Your task to perform on an android device: open app "PlayWell" (install if not already installed) Image 0: 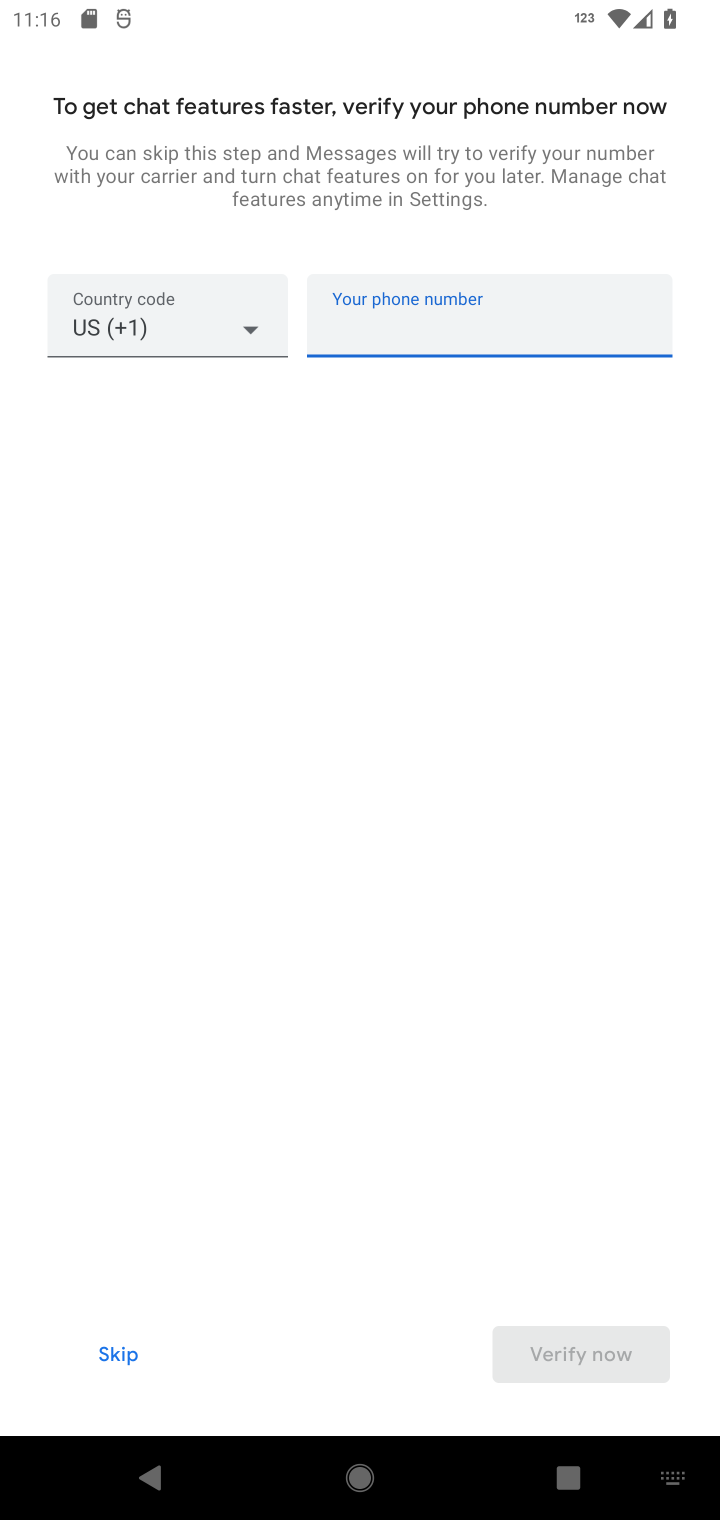
Step 0: press home button
Your task to perform on an android device: open app "PlayWell" (install if not already installed) Image 1: 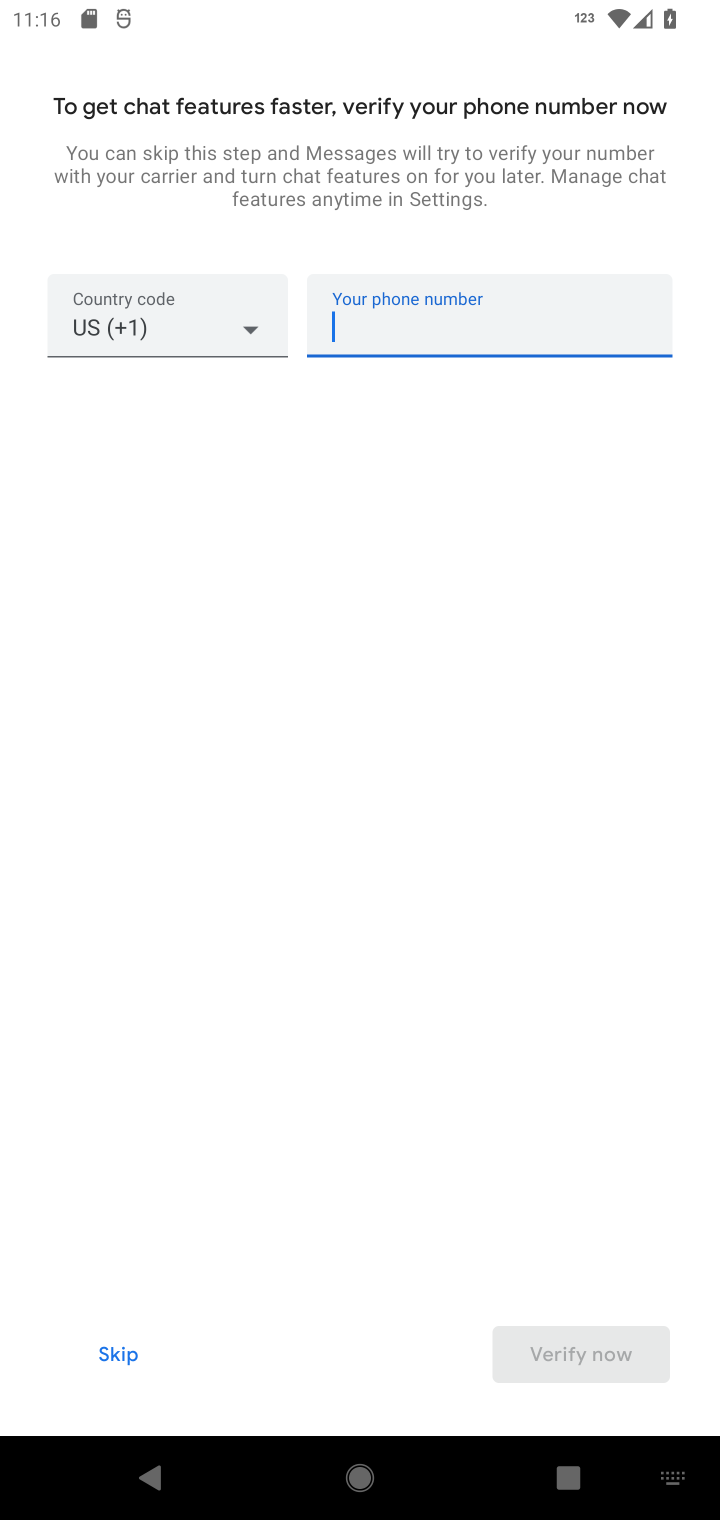
Step 1: press home button
Your task to perform on an android device: open app "PlayWell" (install if not already installed) Image 2: 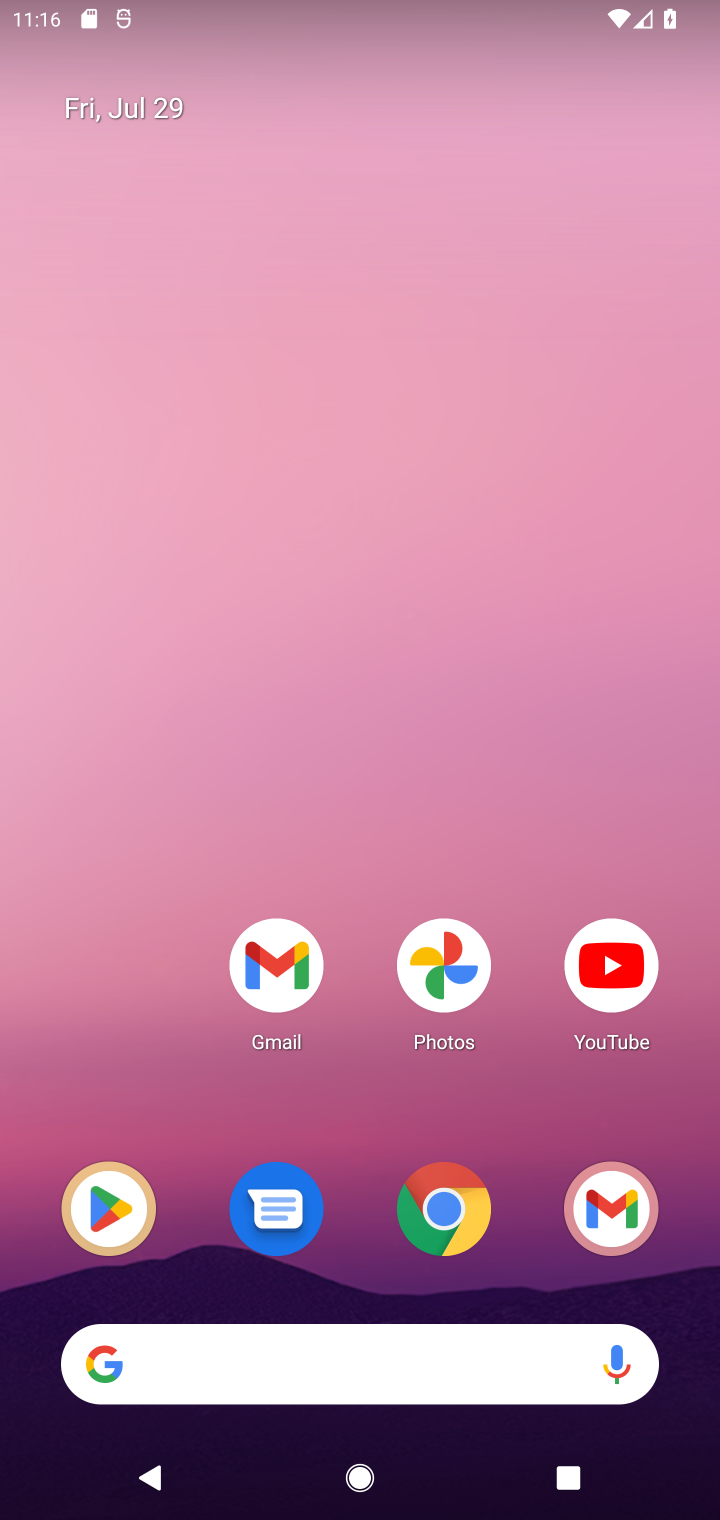
Step 2: drag from (528, 956) to (549, 86)
Your task to perform on an android device: open app "PlayWell" (install if not already installed) Image 3: 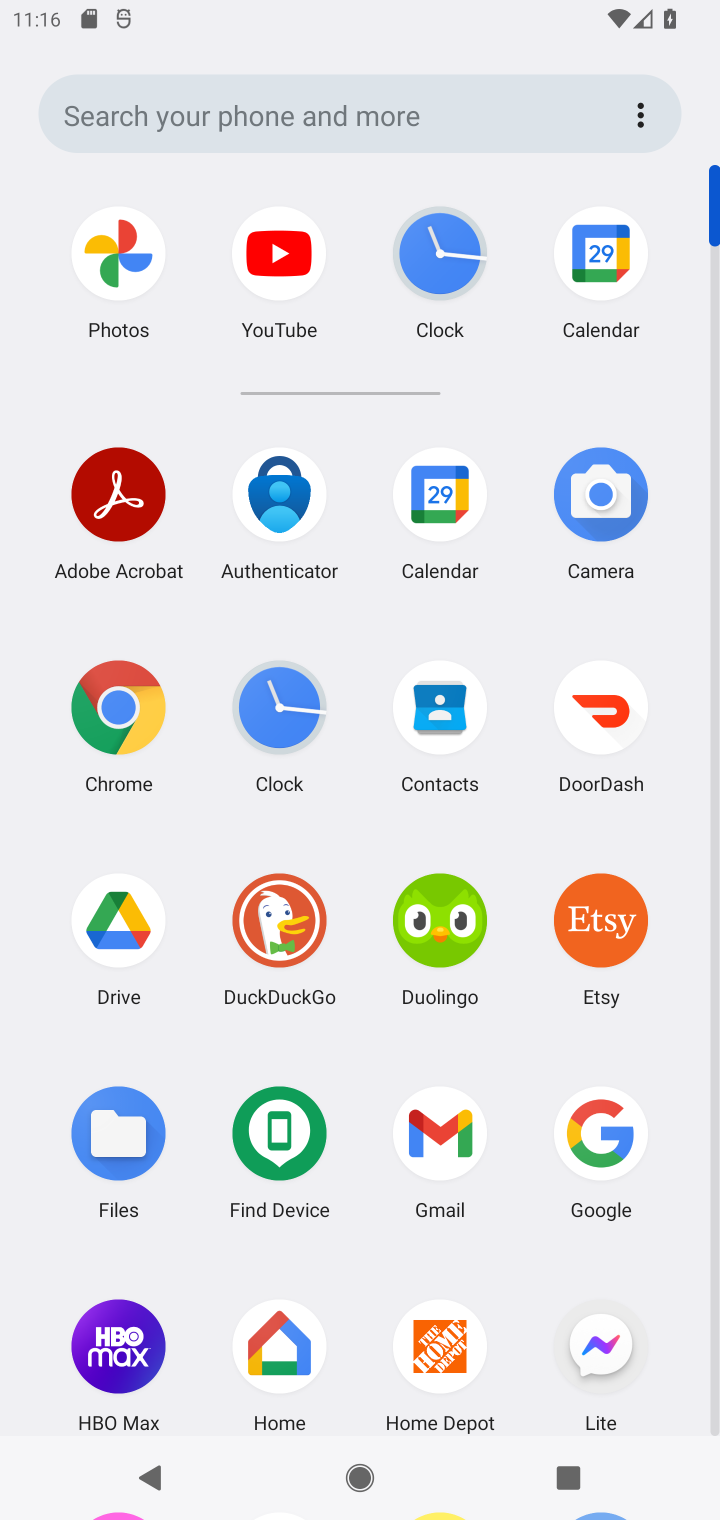
Step 3: drag from (530, 980) to (580, 306)
Your task to perform on an android device: open app "PlayWell" (install if not already installed) Image 4: 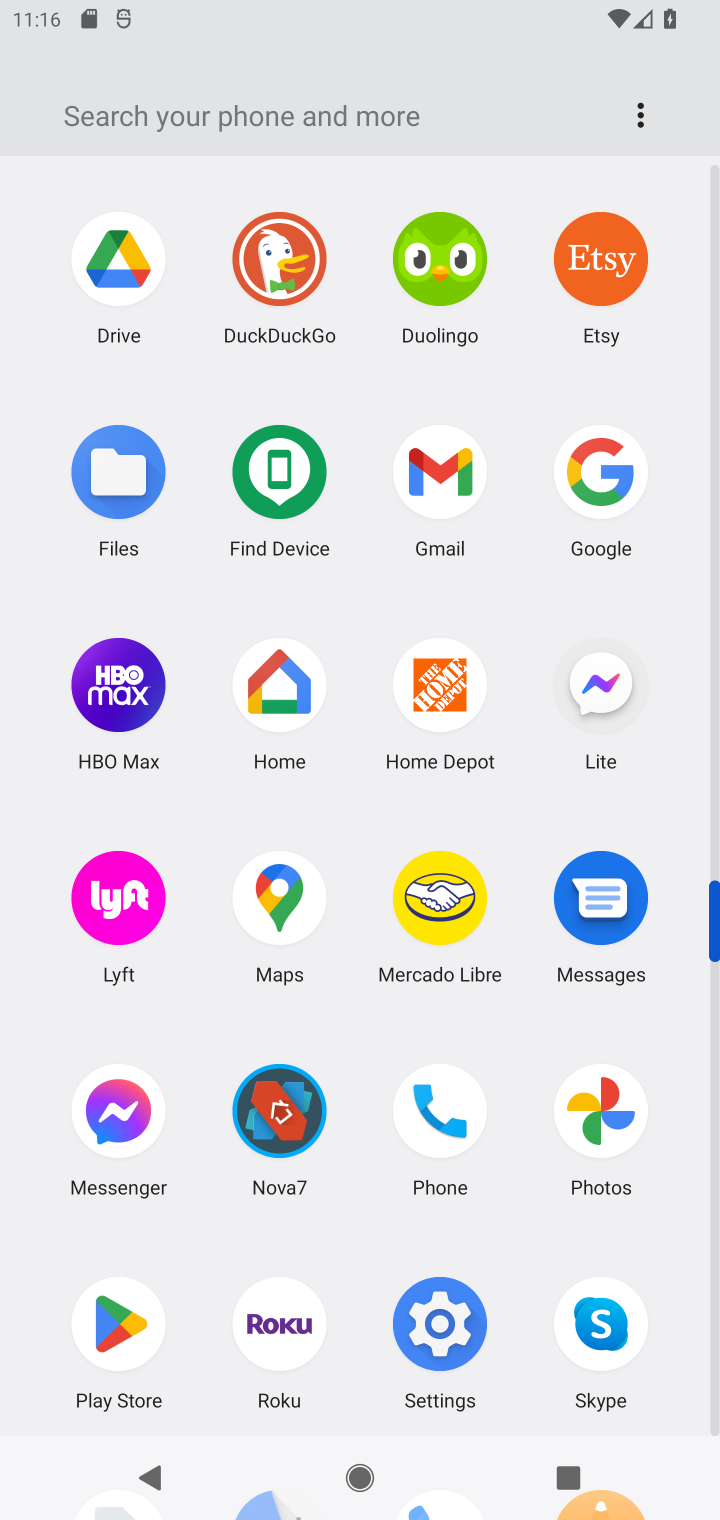
Step 4: click (130, 1315)
Your task to perform on an android device: open app "PlayWell" (install if not already installed) Image 5: 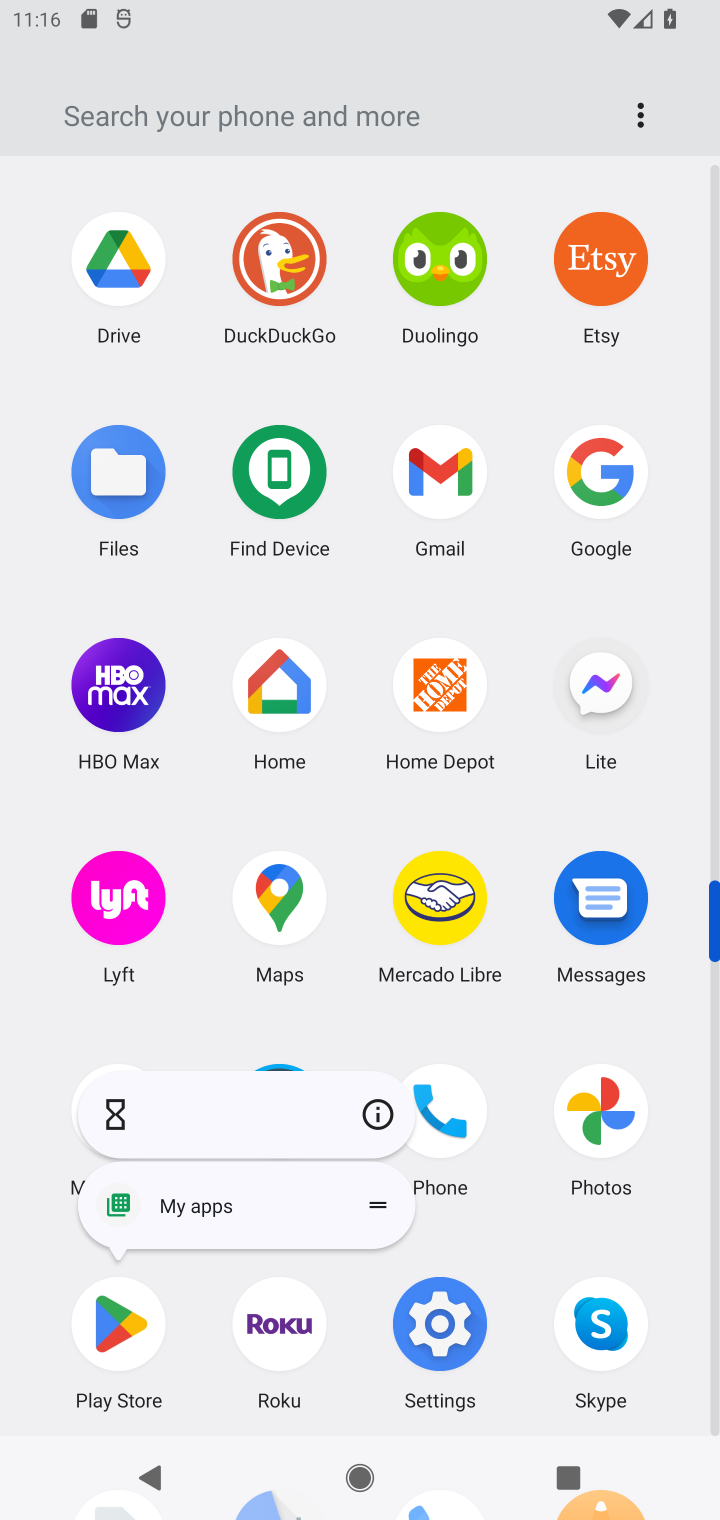
Step 5: click (118, 1332)
Your task to perform on an android device: open app "PlayWell" (install if not already installed) Image 6: 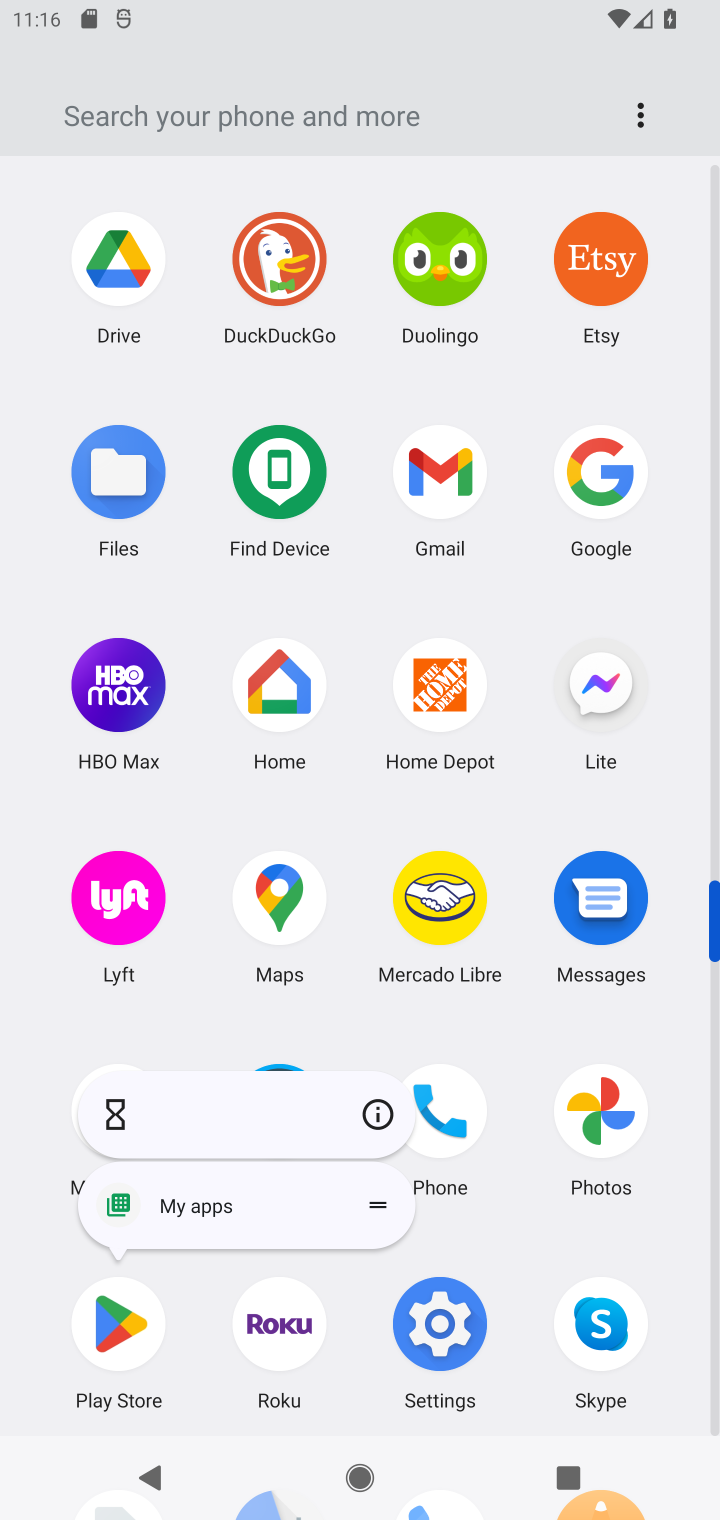
Step 6: click (102, 1341)
Your task to perform on an android device: open app "PlayWell" (install if not already installed) Image 7: 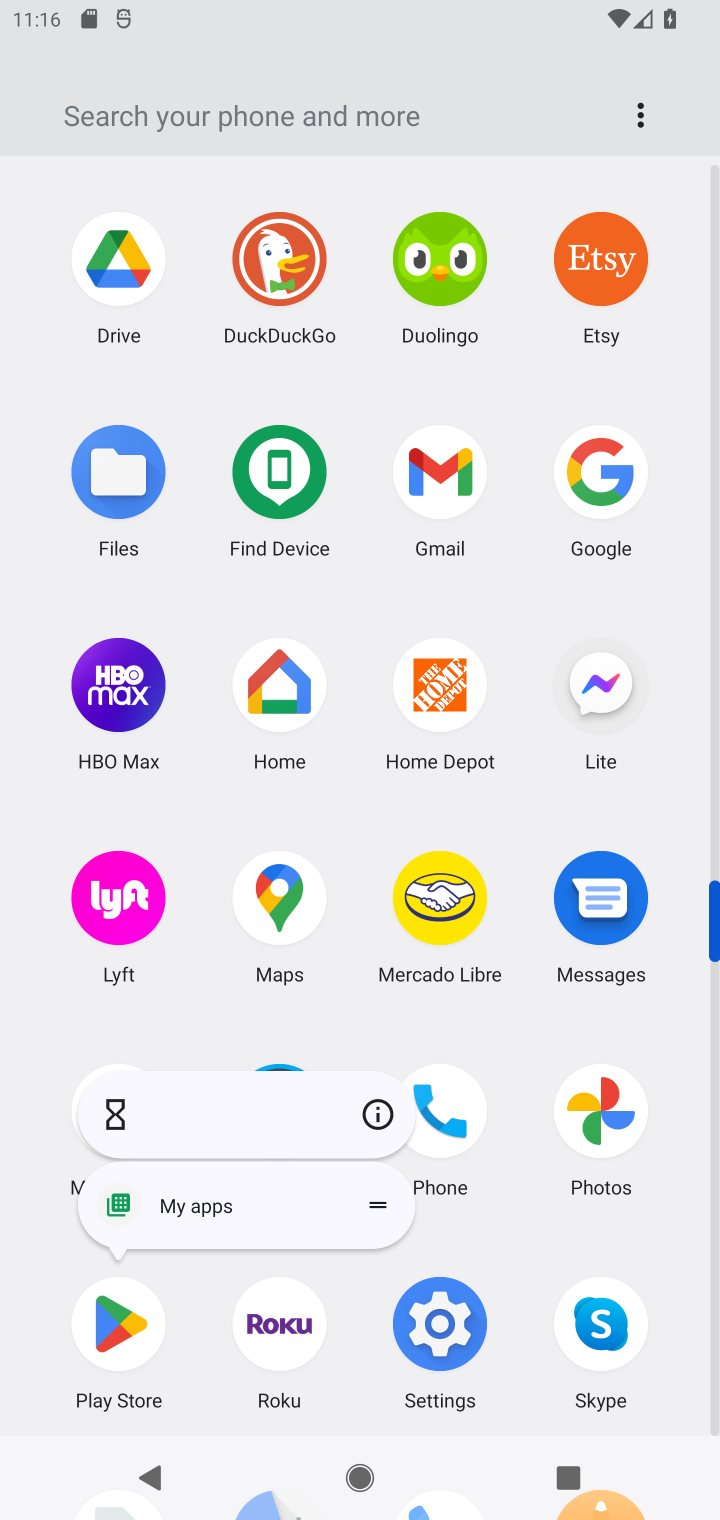
Step 7: click (524, 1240)
Your task to perform on an android device: open app "PlayWell" (install if not already installed) Image 8: 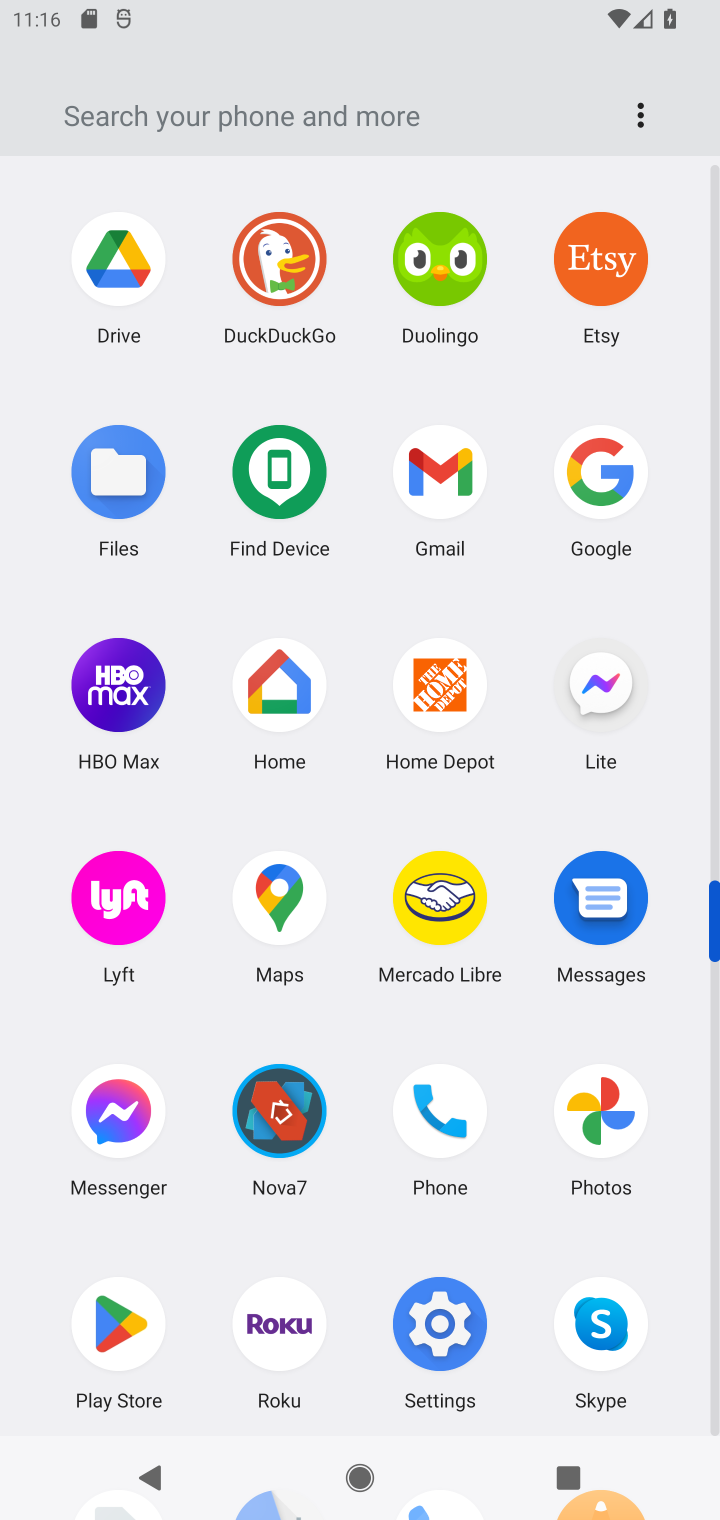
Step 8: click (109, 1342)
Your task to perform on an android device: open app "PlayWell" (install if not already installed) Image 9: 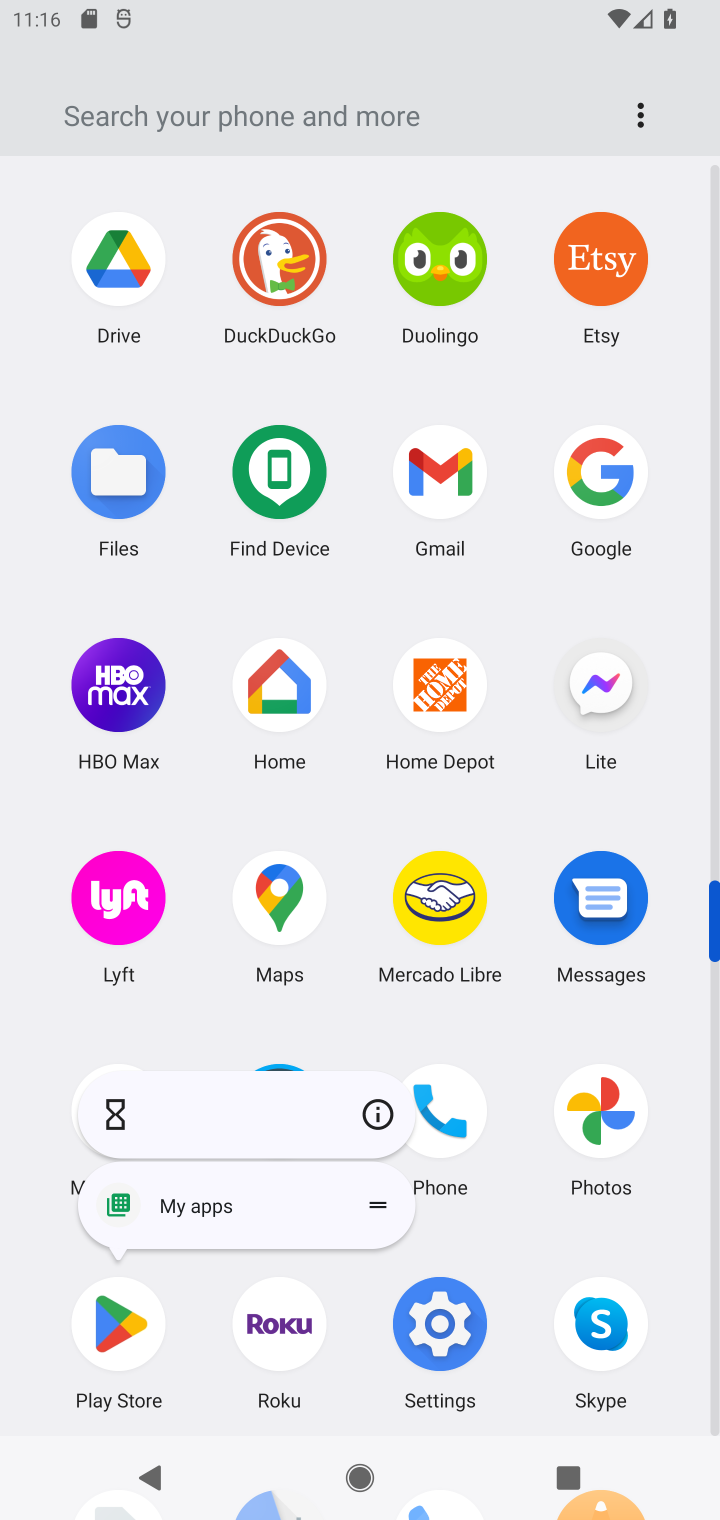
Step 9: click (495, 1242)
Your task to perform on an android device: open app "PlayWell" (install if not already installed) Image 10: 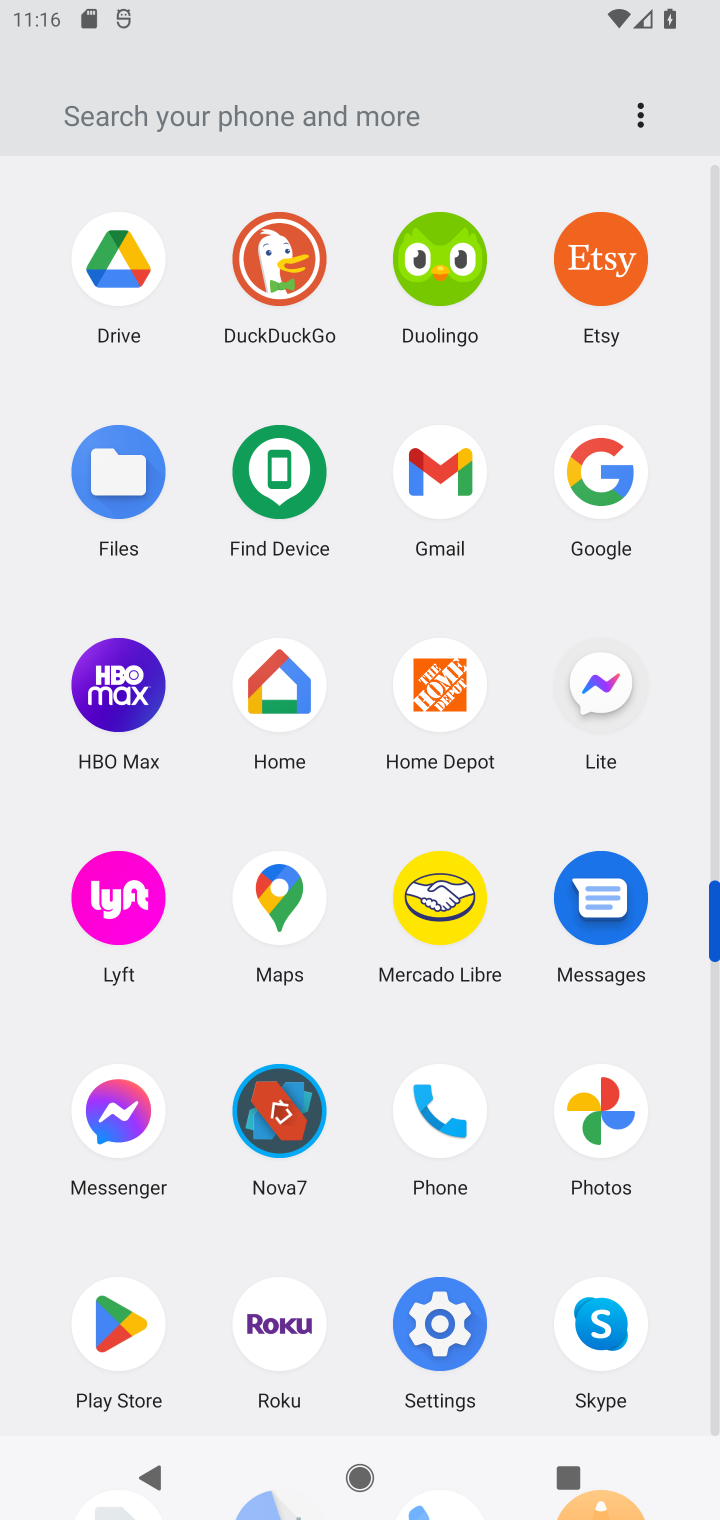
Step 10: click (506, 1243)
Your task to perform on an android device: open app "PlayWell" (install if not already installed) Image 11: 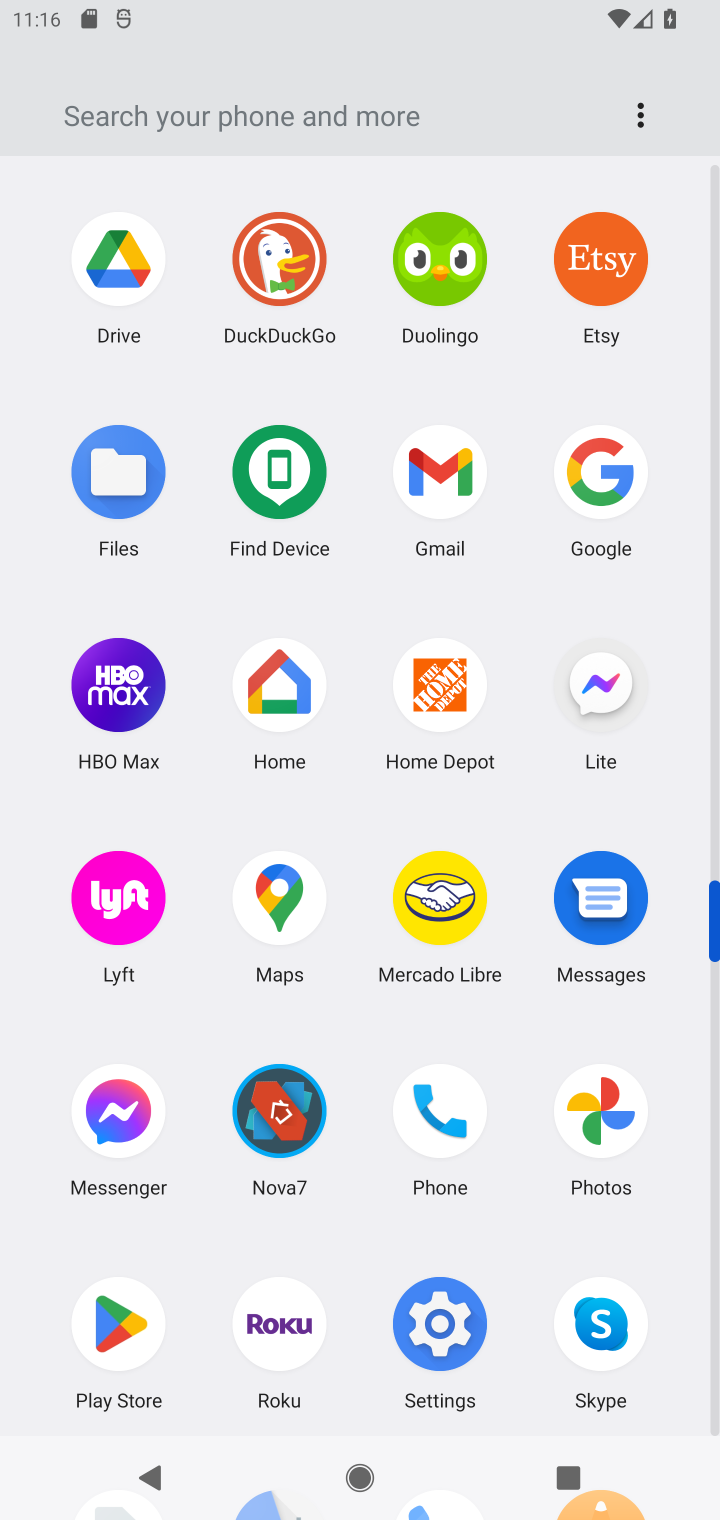
Step 11: click (124, 1311)
Your task to perform on an android device: open app "PlayWell" (install if not already installed) Image 12: 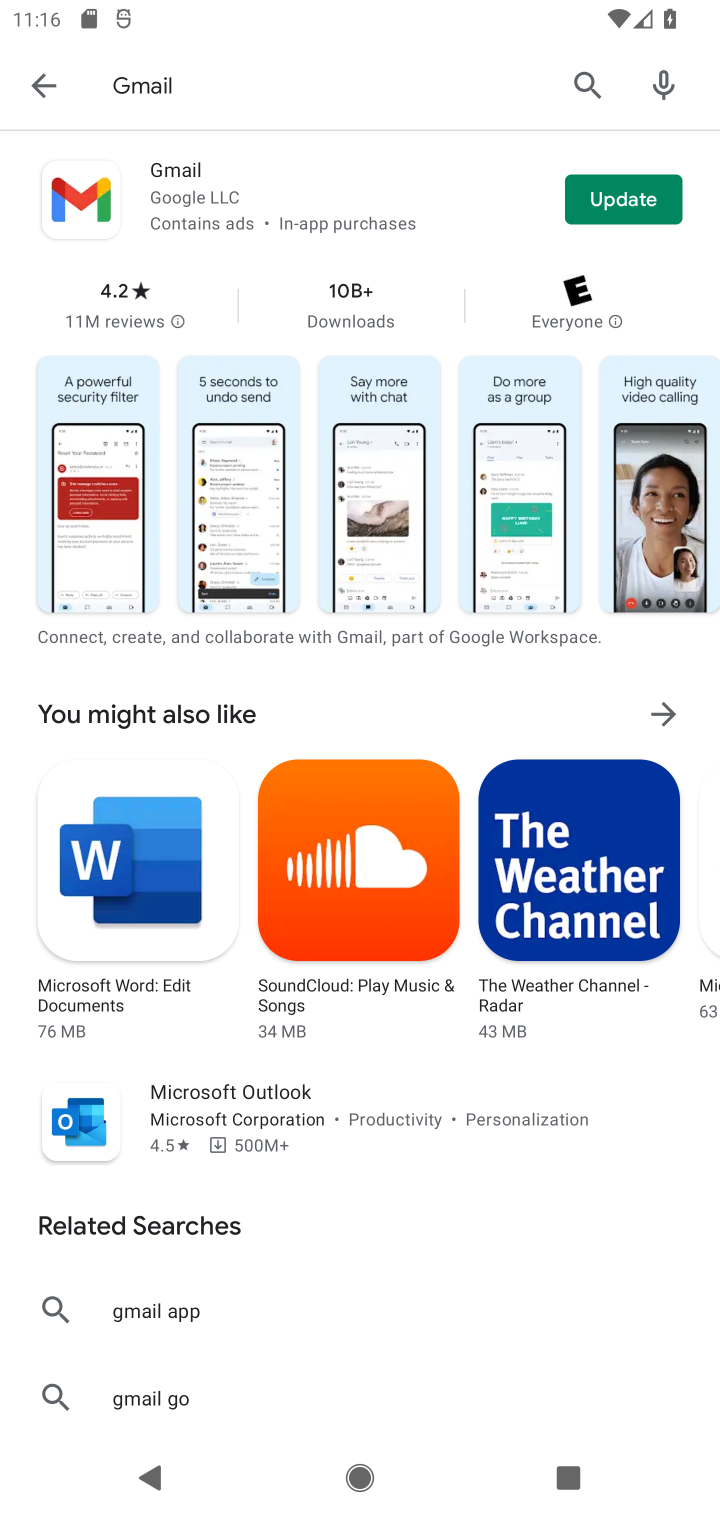
Step 12: click (379, 88)
Your task to perform on an android device: open app "PlayWell" (install if not already installed) Image 13: 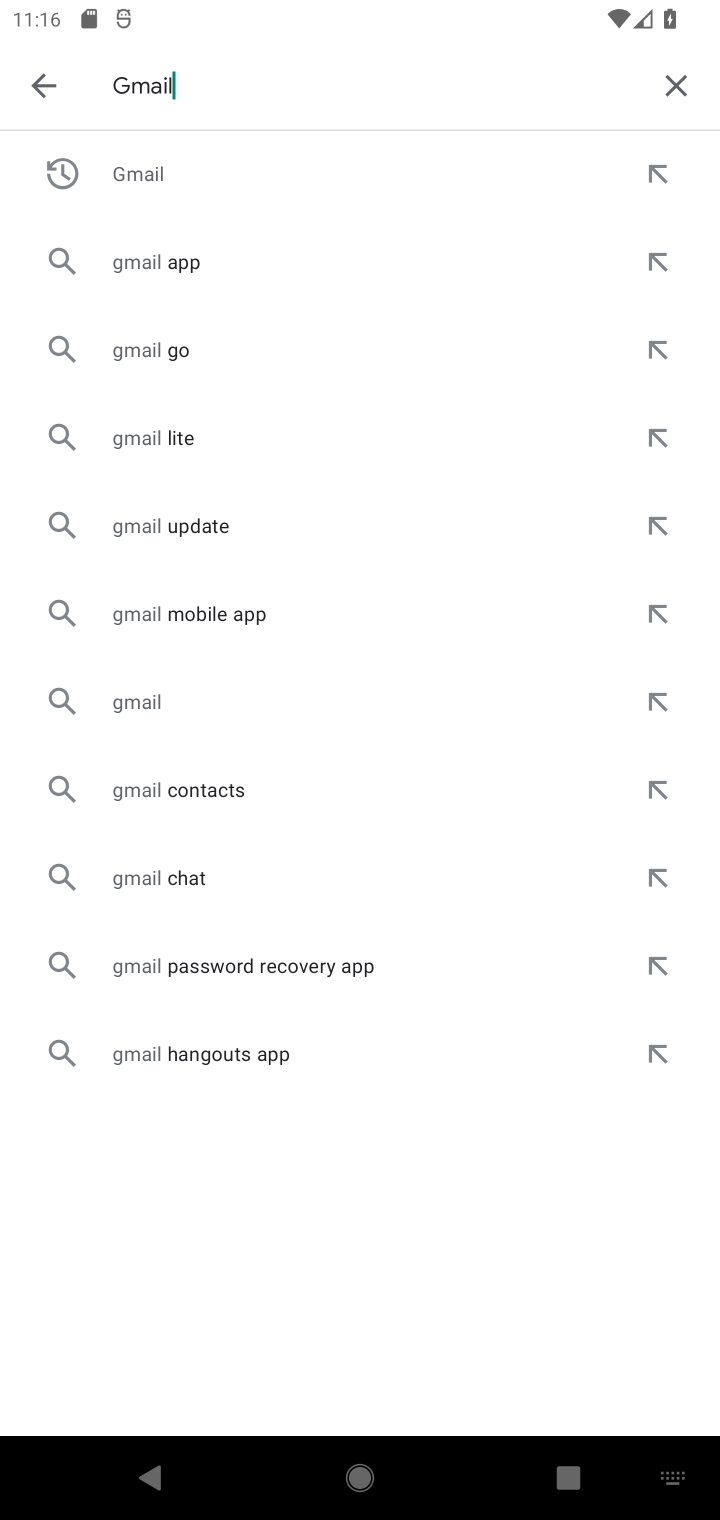
Step 13: click (685, 82)
Your task to perform on an android device: open app "PlayWell" (install if not already installed) Image 14: 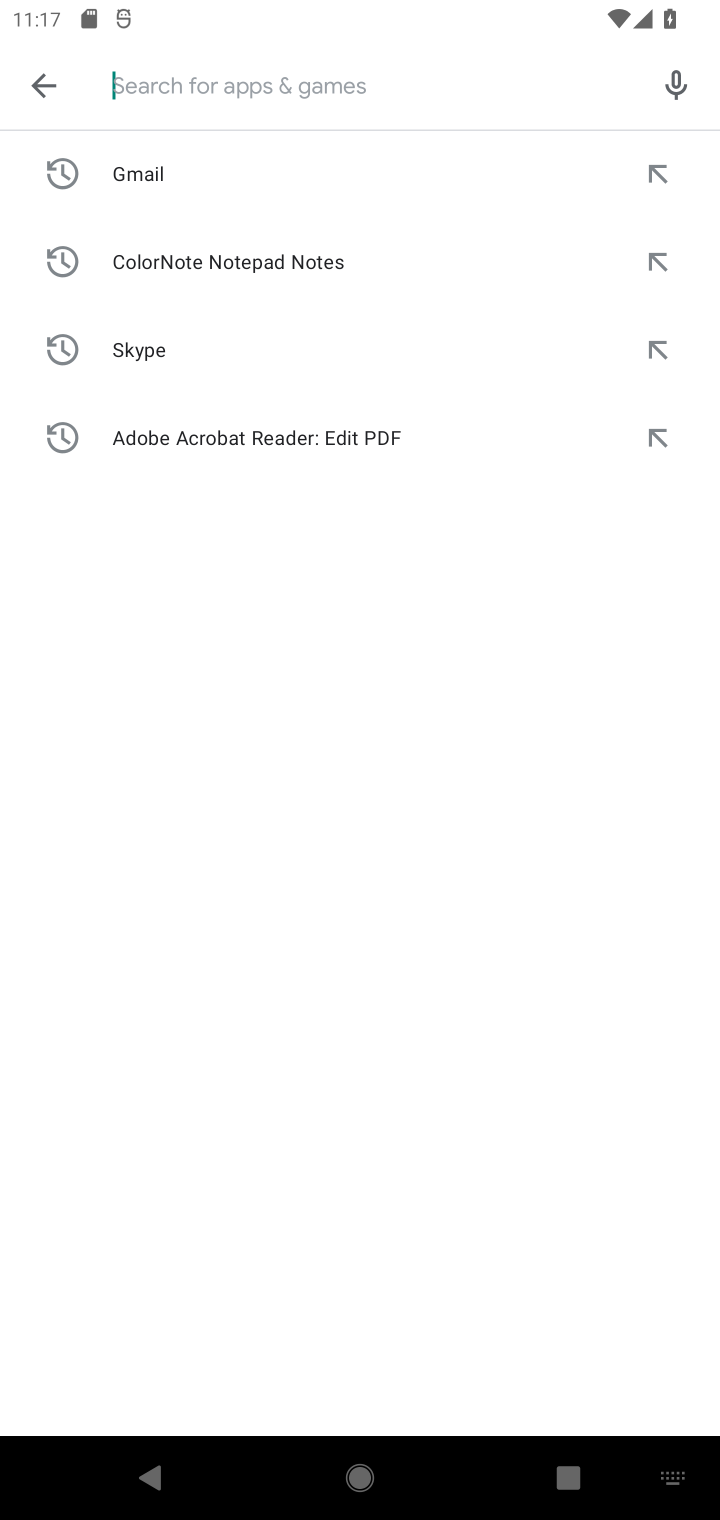
Step 14: type "PlayWell"
Your task to perform on an android device: open app "PlayWell" (install if not already installed) Image 15: 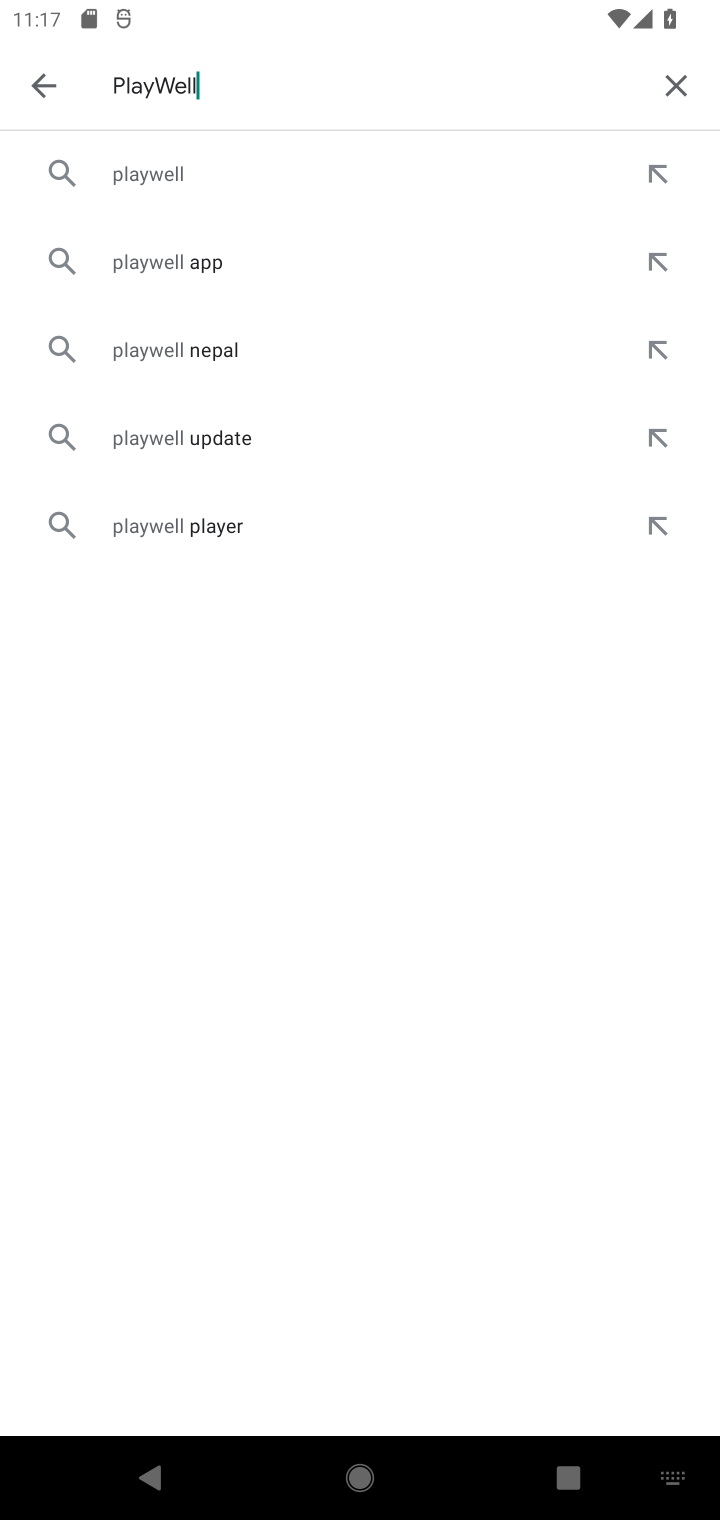
Step 15: press enter
Your task to perform on an android device: open app "PlayWell" (install if not already installed) Image 16: 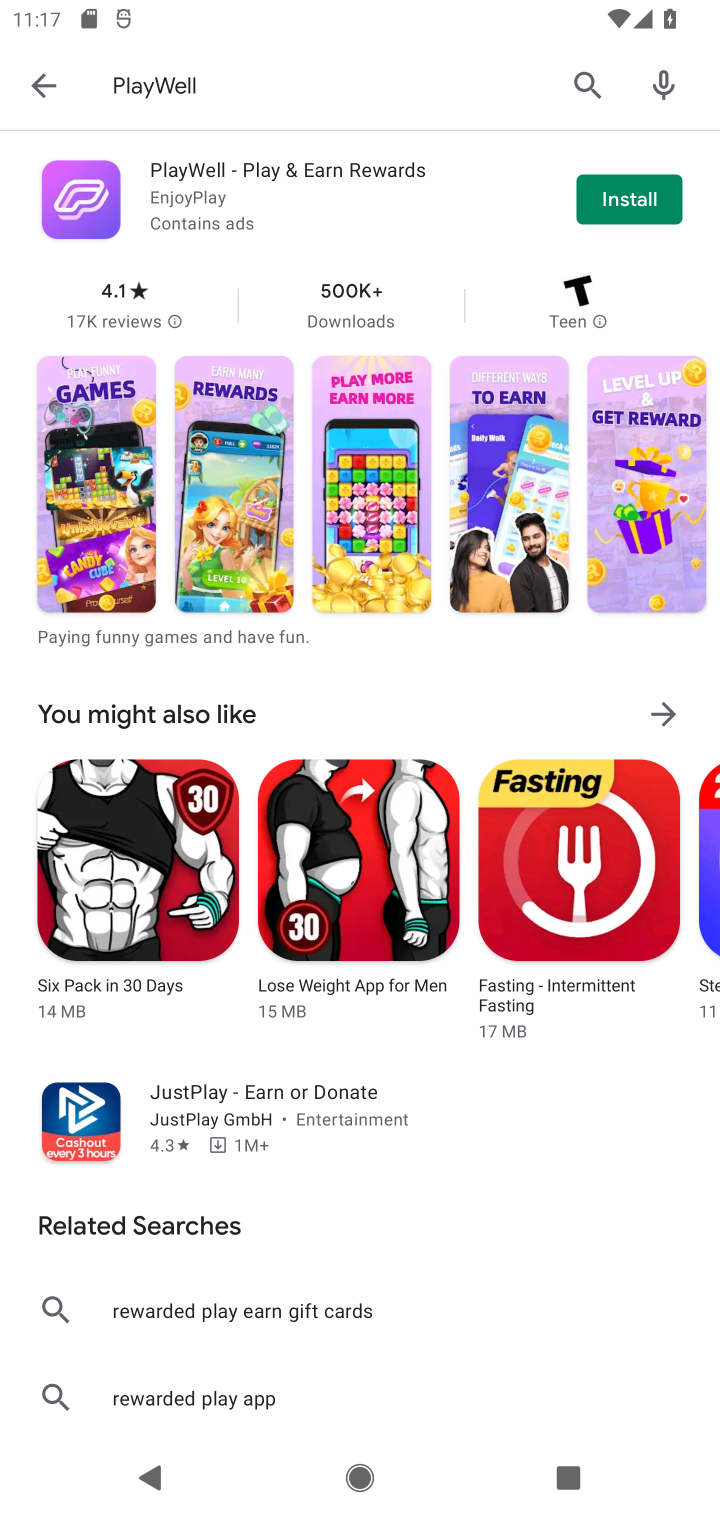
Step 16: click (652, 188)
Your task to perform on an android device: open app "PlayWell" (install if not already installed) Image 17: 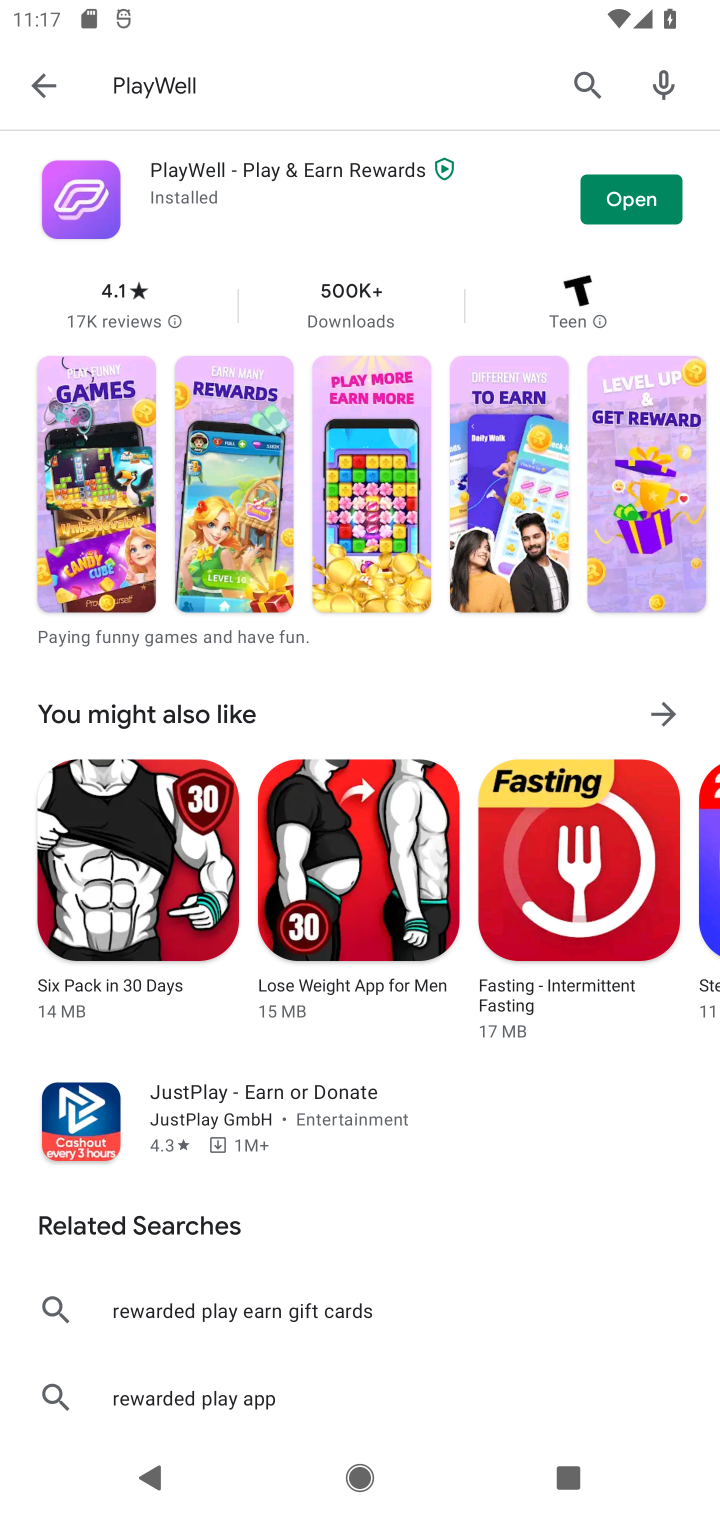
Step 17: click (618, 200)
Your task to perform on an android device: open app "PlayWell" (install if not already installed) Image 18: 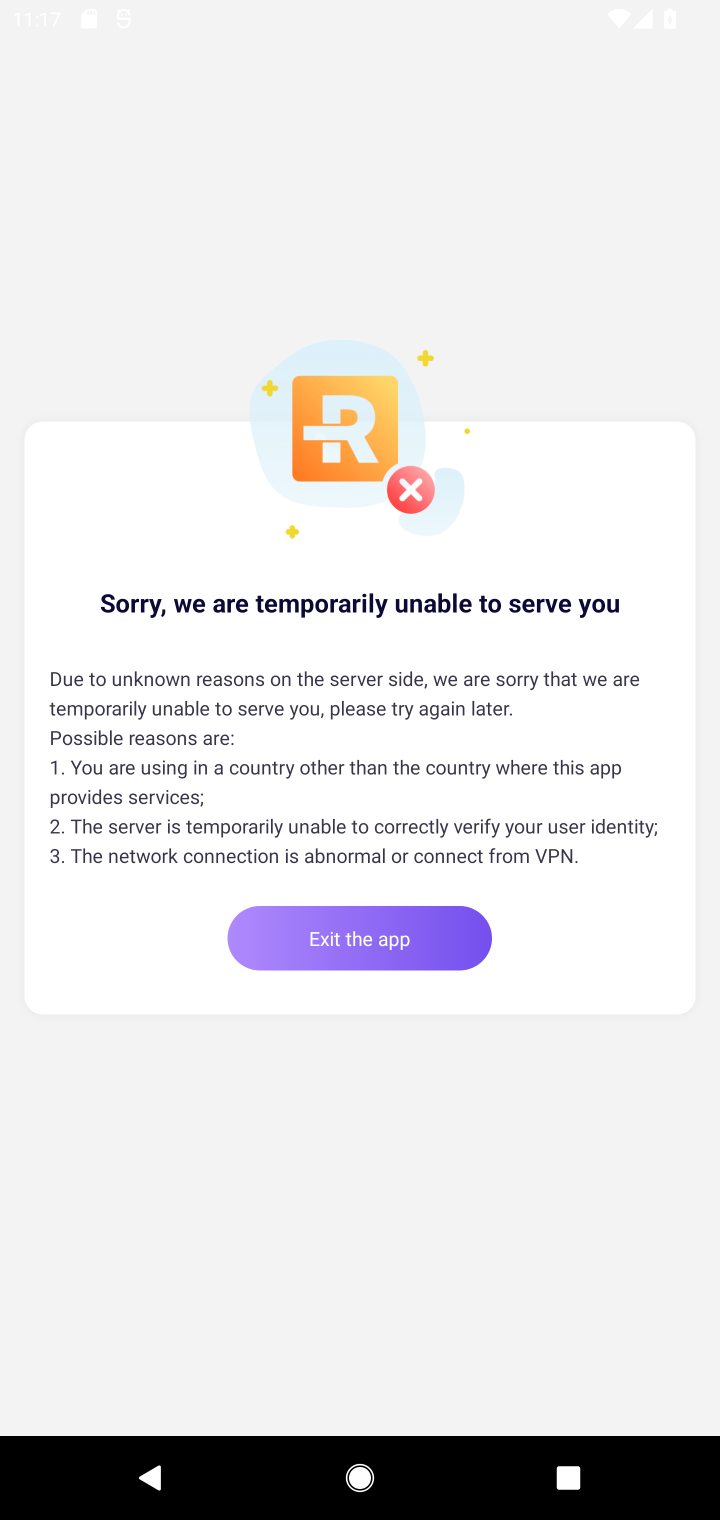
Step 18: task complete